Your task to perform on an android device: choose inbox layout in the gmail app Image 0: 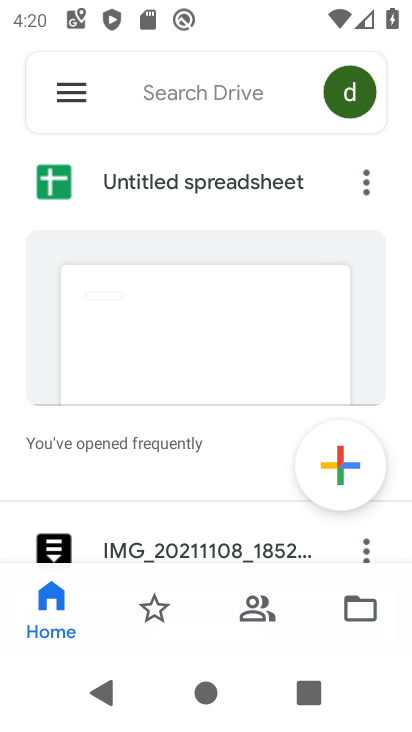
Step 0: press home button
Your task to perform on an android device: choose inbox layout in the gmail app Image 1: 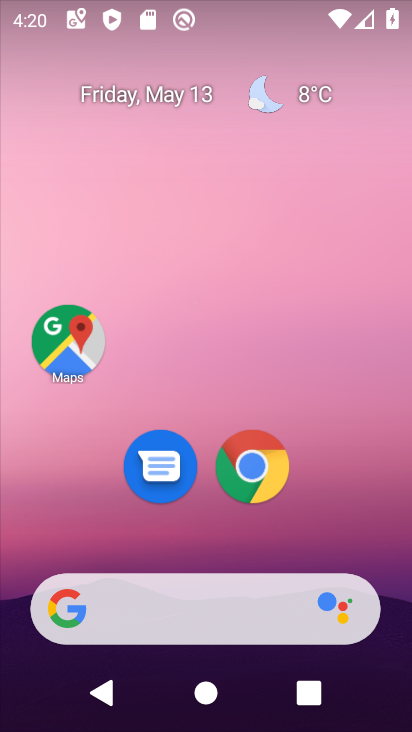
Step 1: drag from (399, 611) to (336, 36)
Your task to perform on an android device: choose inbox layout in the gmail app Image 2: 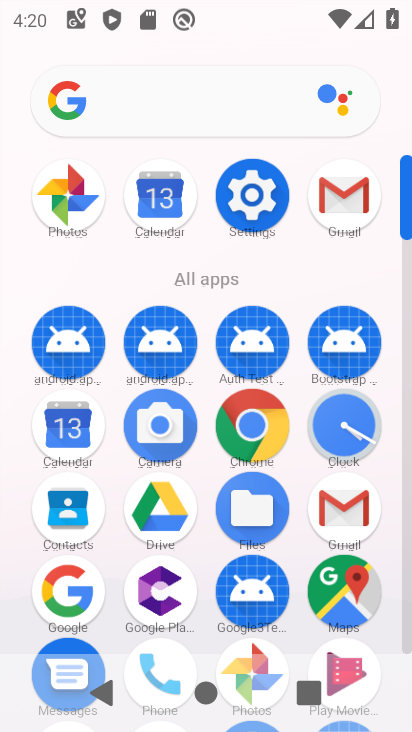
Step 2: click (334, 493)
Your task to perform on an android device: choose inbox layout in the gmail app Image 3: 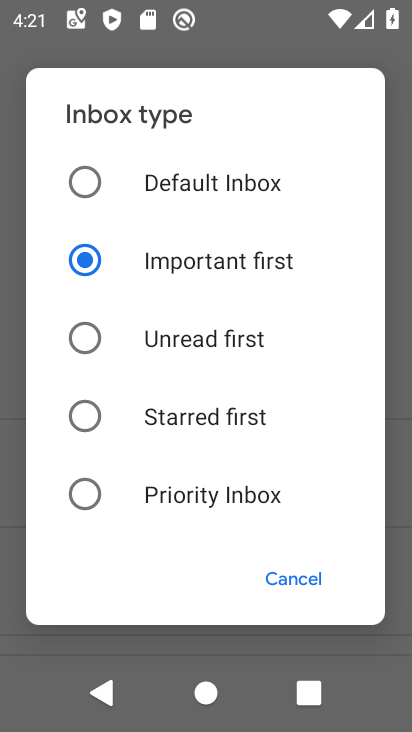
Step 3: click (93, 183)
Your task to perform on an android device: choose inbox layout in the gmail app Image 4: 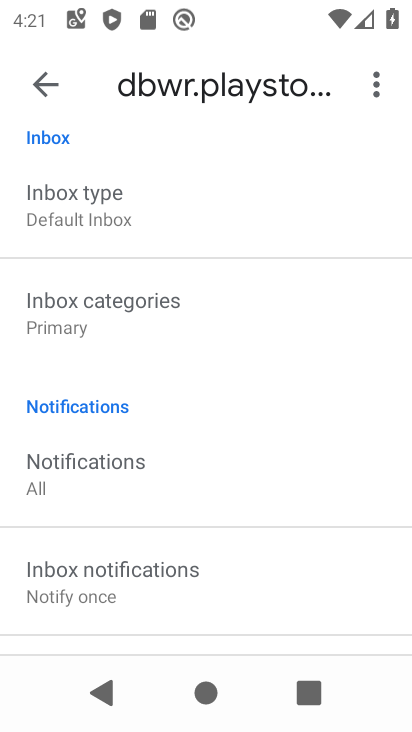
Step 4: task complete